Your task to perform on an android device: Search for Mexican restaurants on Maps Image 0: 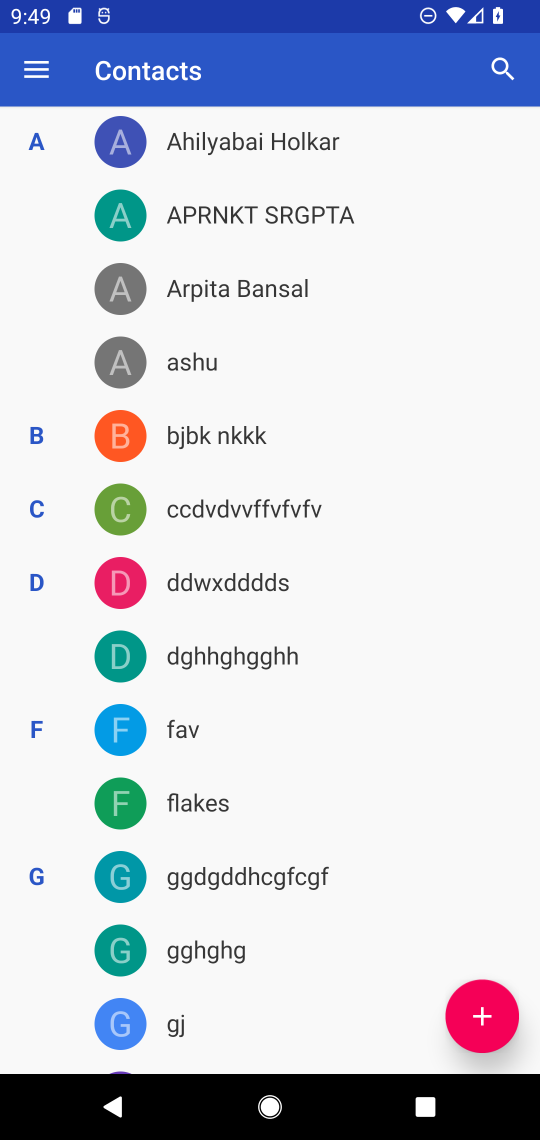
Step 0: press home button
Your task to perform on an android device: Search for Mexican restaurants on Maps Image 1: 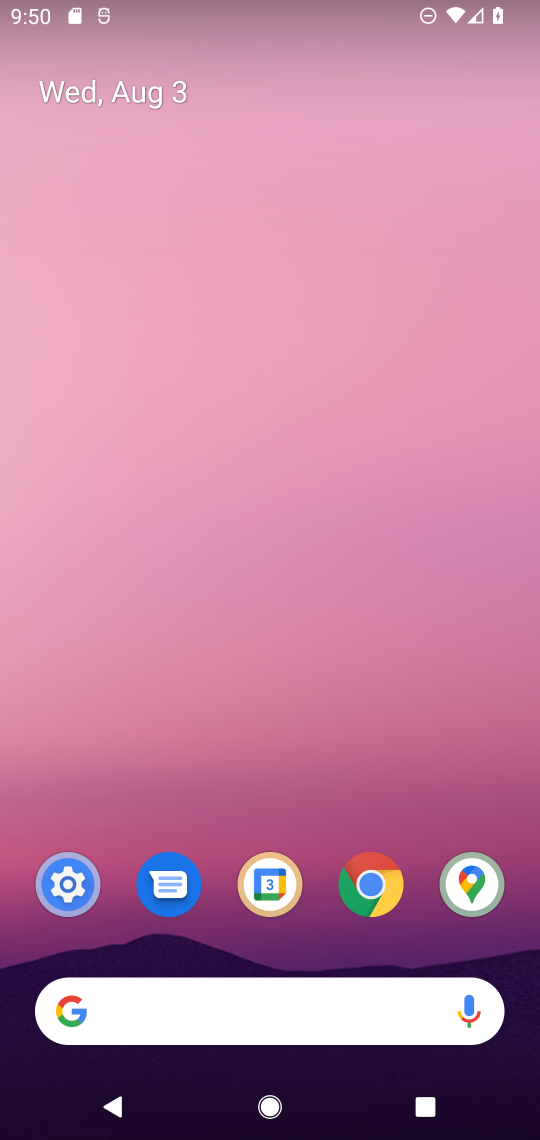
Step 1: click (455, 869)
Your task to perform on an android device: Search for Mexican restaurants on Maps Image 2: 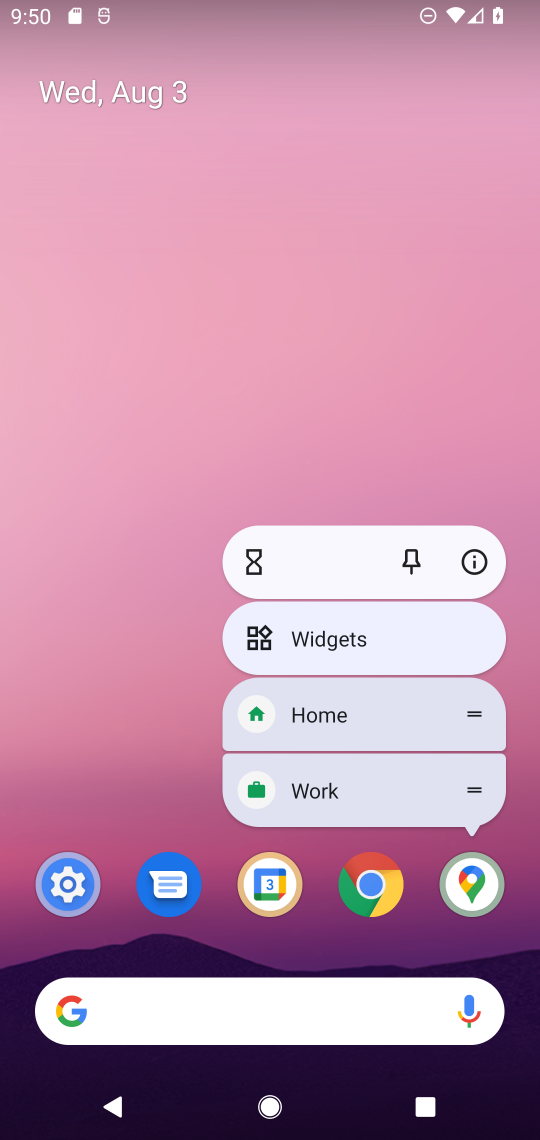
Step 2: click (460, 882)
Your task to perform on an android device: Search for Mexican restaurants on Maps Image 3: 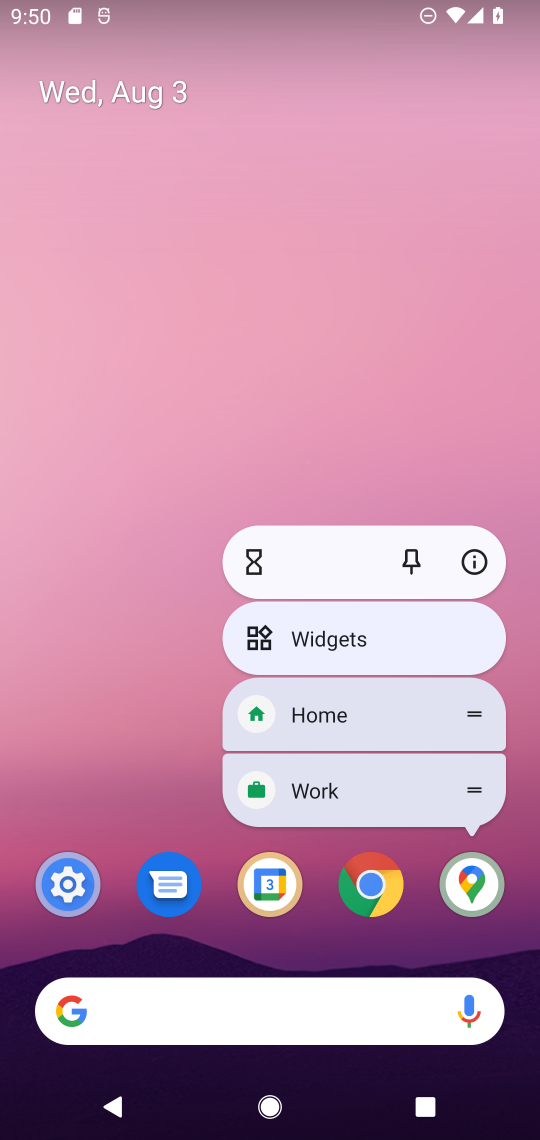
Step 3: click (358, 893)
Your task to perform on an android device: Search for Mexican restaurants on Maps Image 4: 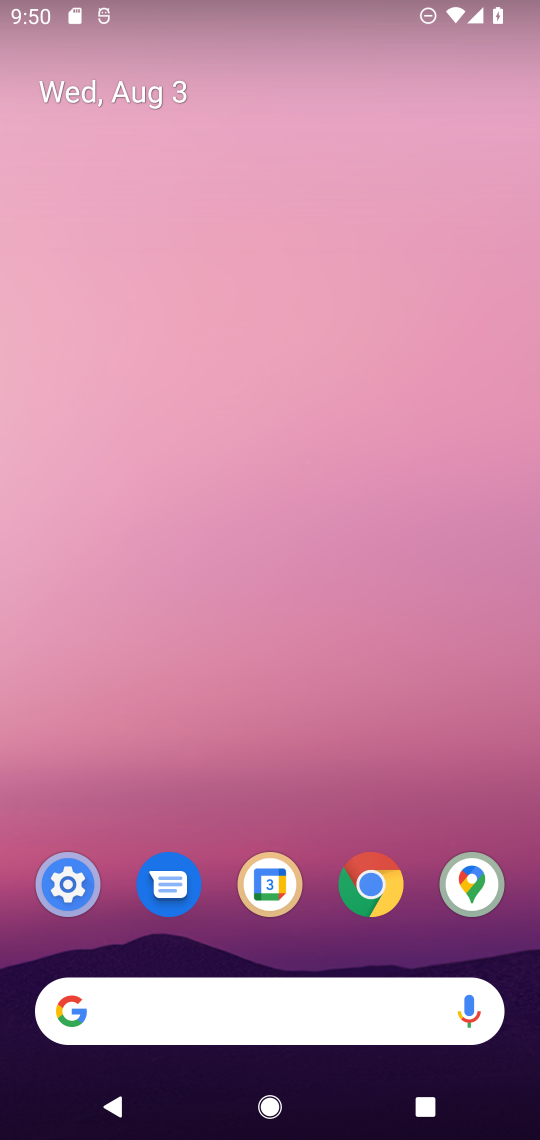
Step 4: click (366, 876)
Your task to perform on an android device: Search for Mexican restaurants on Maps Image 5: 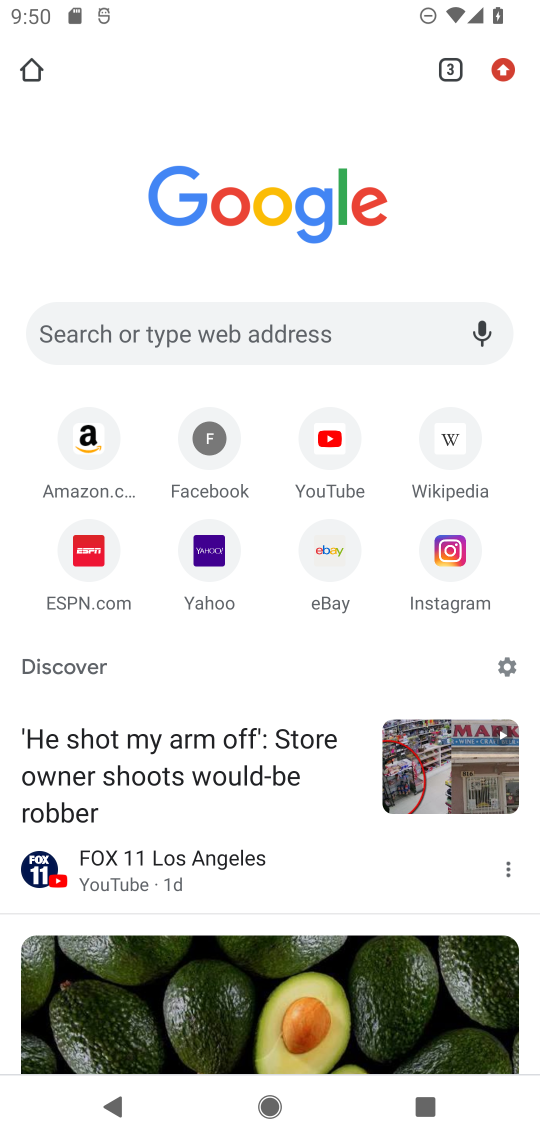
Step 5: click (161, 338)
Your task to perform on an android device: Search for Mexican restaurants on Maps Image 6: 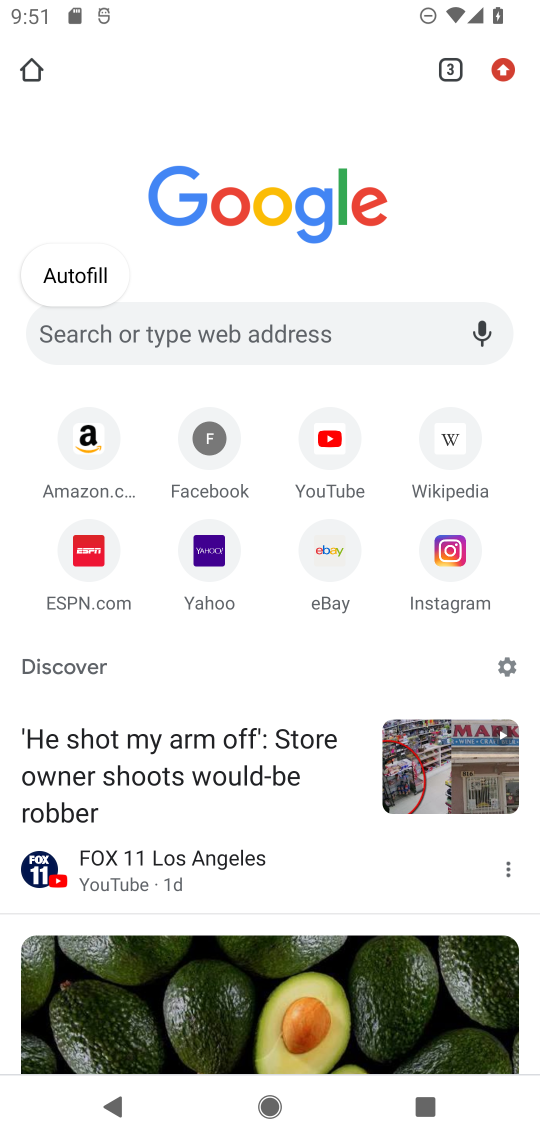
Step 6: click (142, 292)
Your task to perform on an android device: Search for Mexican restaurants on Maps Image 7: 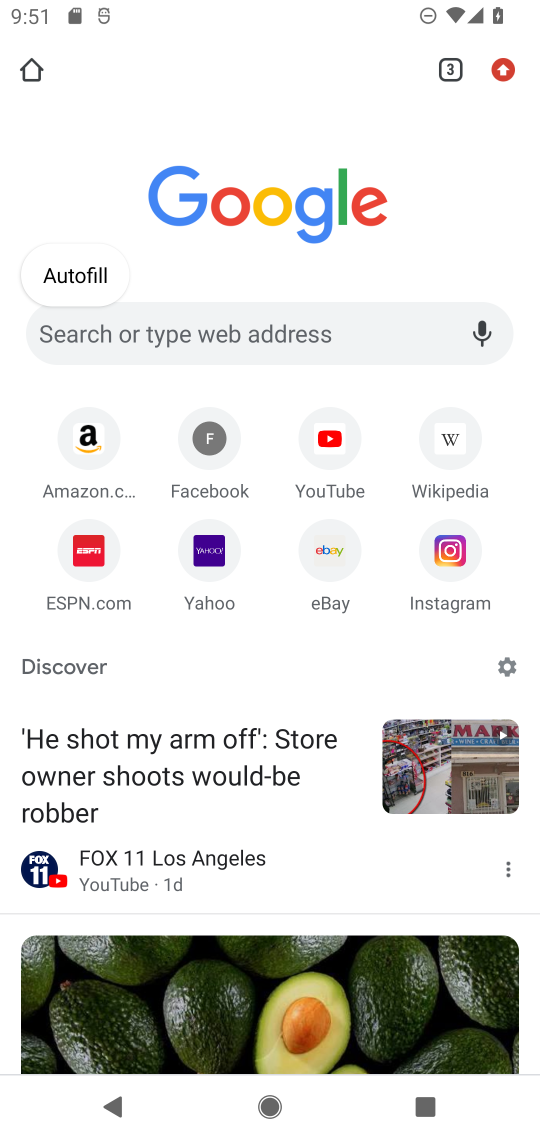
Step 7: click (129, 328)
Your task to perform on an android device: Search for Mexican restaurants on Maps Image 8: 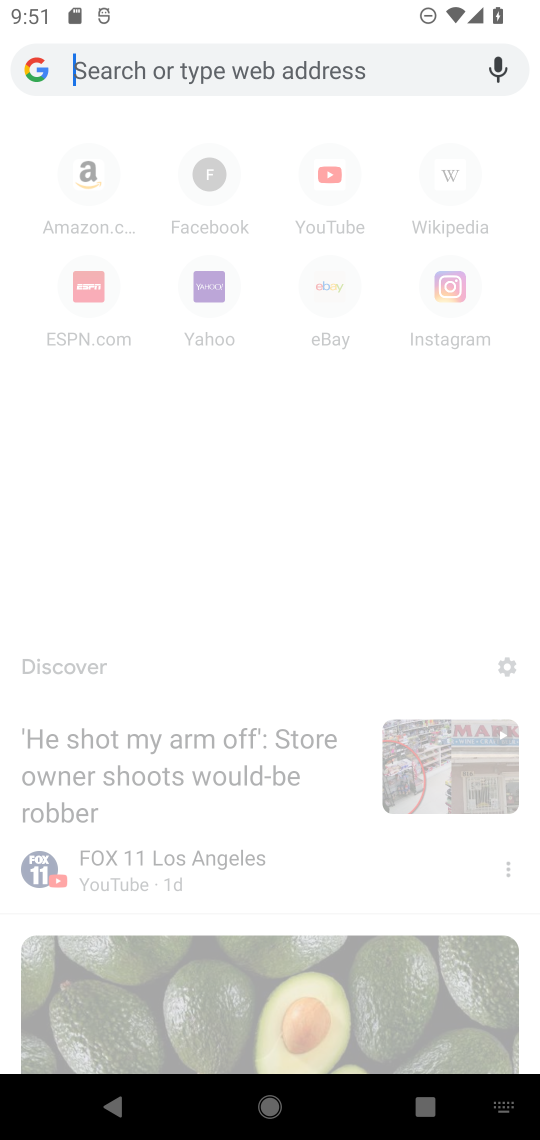
Step 8: type "Mexican restaurants "
Your task to perform on an android device: Search for Mexican restaurants on Maps Image 9: 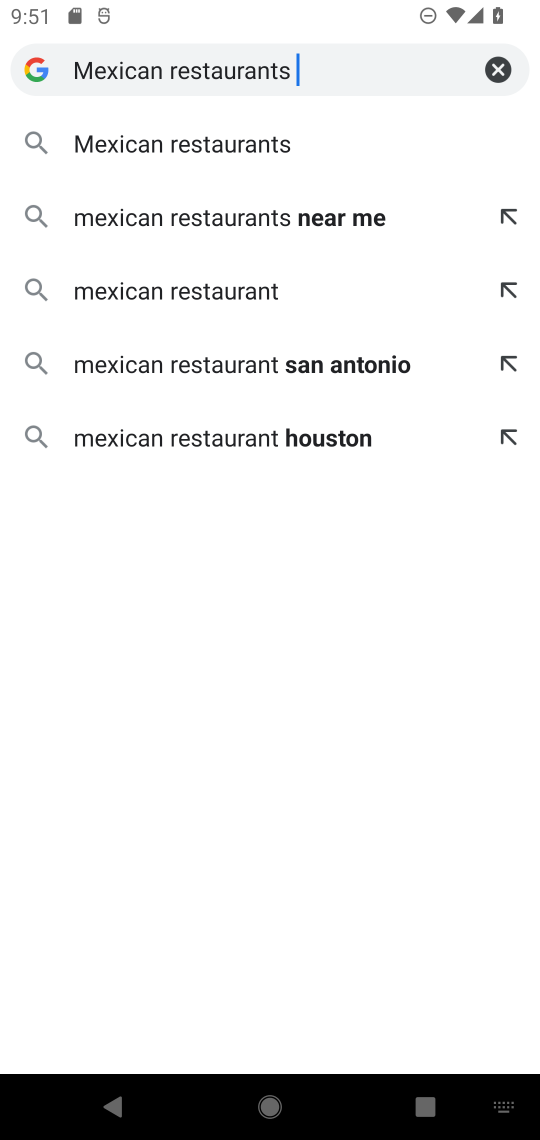
Step 9: type ""
Your task to perform on an android device: Search for Mexican restaurants on Maps Image 10: 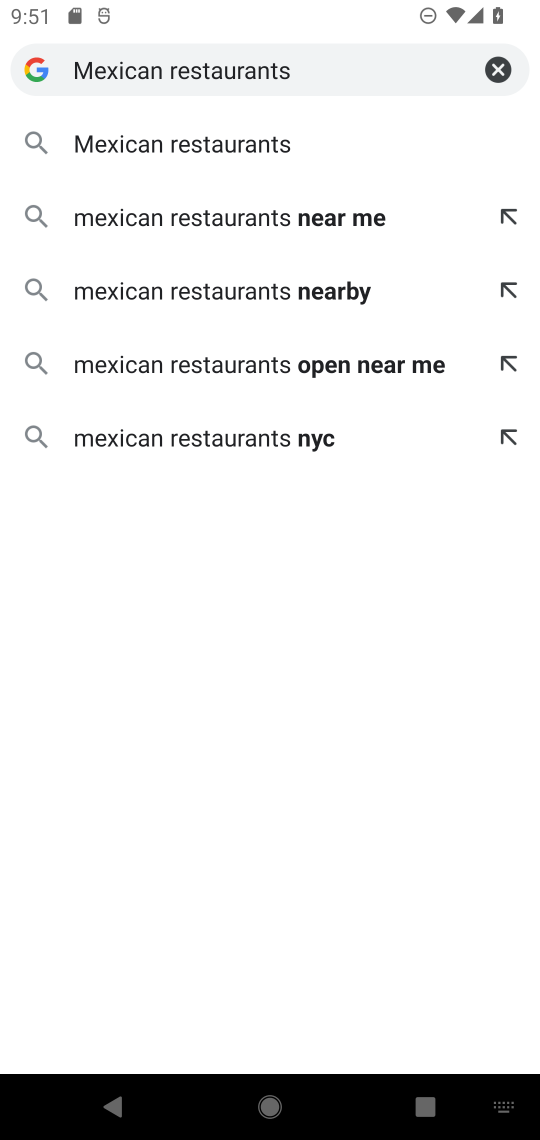
Step 10: click (210, 135)
Your task to perform on an android device: Search for Mexican restaurants on Maps Image 11: 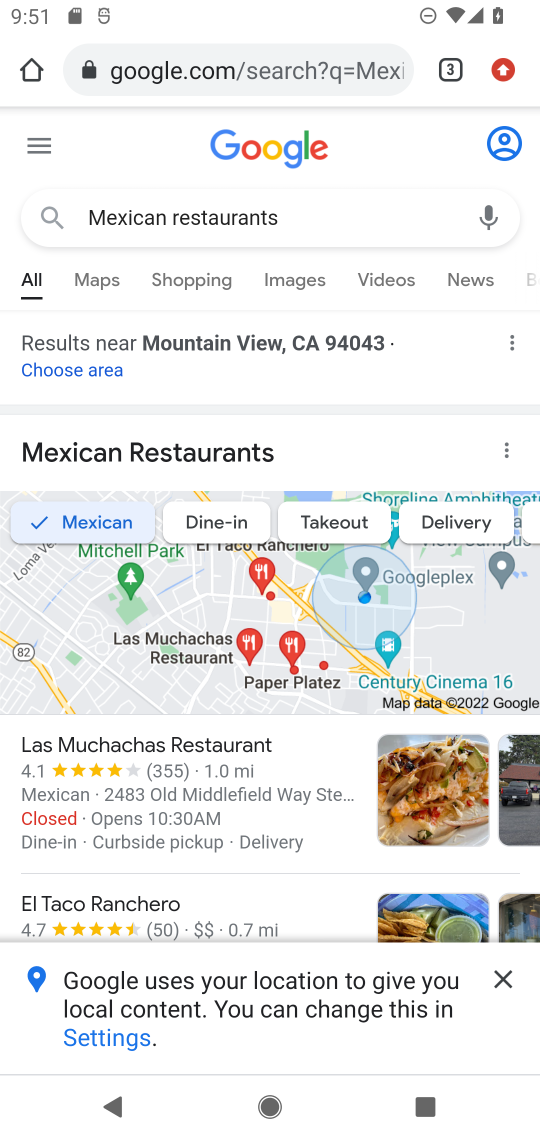
Step 11: task complete